Your task to perform on an android device: Open calendar and show me the first week of next month Image 0: 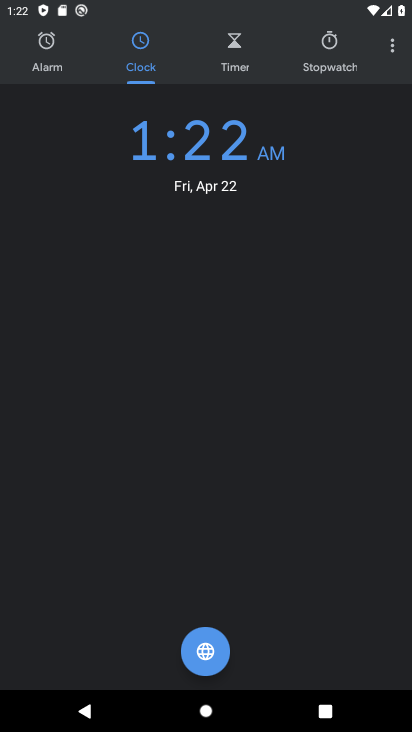
Step 0: press home button
Your task to perform on an android device: Open calendar and show me the first week of next month Image 1: 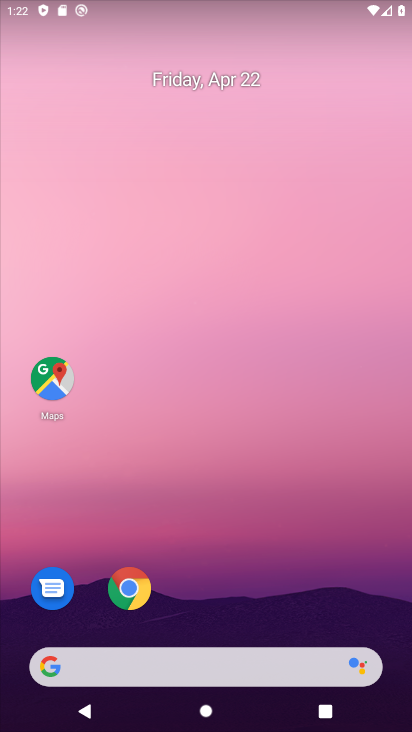
Step 1: drag from (209, 658) to (233, 178)
Your task to perform on an android device: Open calendar and show me the first week of next month Image 2: 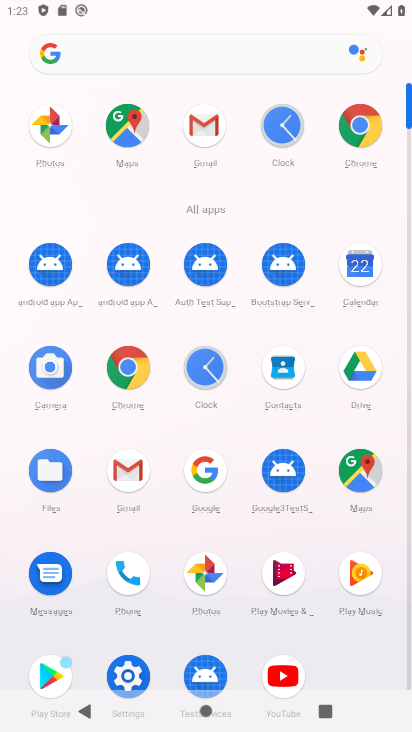
Step 2: click (373, 277)
Your task to perform on an android device: Open calendar and show me the first week of next month Image 3: 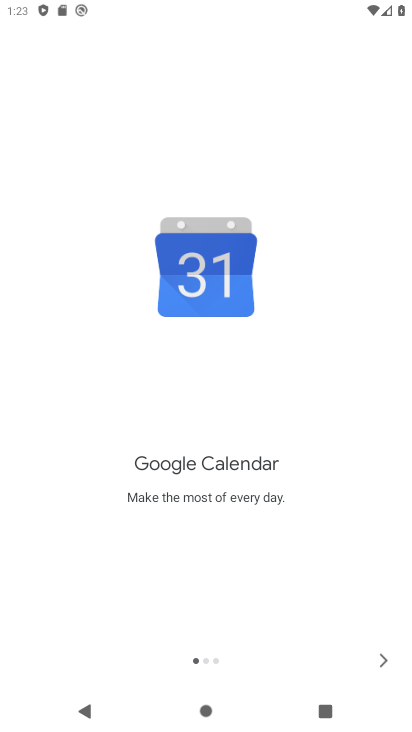
Step 3: click (379, 658)
Your task to perform on an android device: Open calendar and show me the first week of next month Image 4: 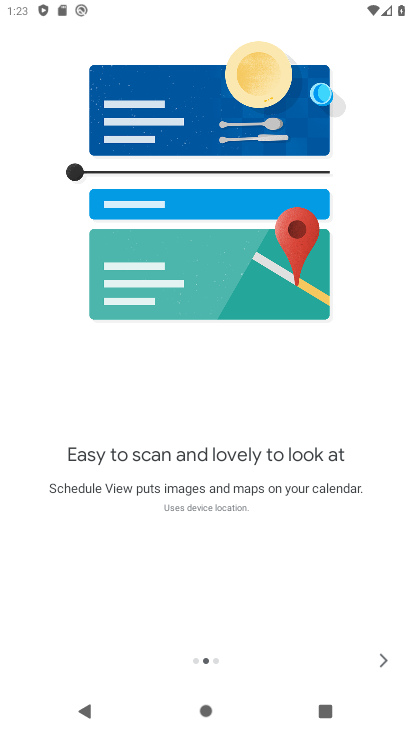
Step 4: click (381, 656)
Your task to perform on an android device: Open calendar and show me the first week of next month Image 5: 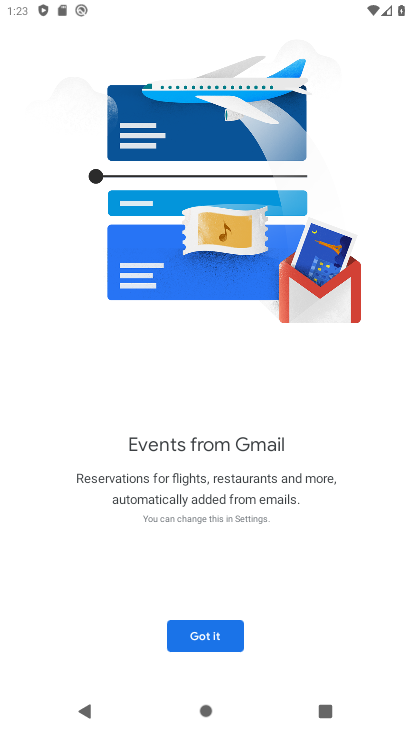
Step 5: click (232, 639)
Your task to perform on an android device: Open calendar and show me the first week of next month Image 6: 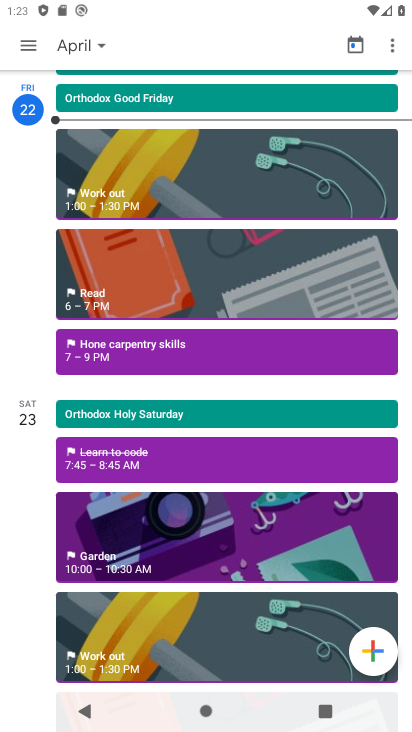
Step 6: click (99, 48)
Your task to perform on an android device: Open calendar and show me the first week of next month Image 7: 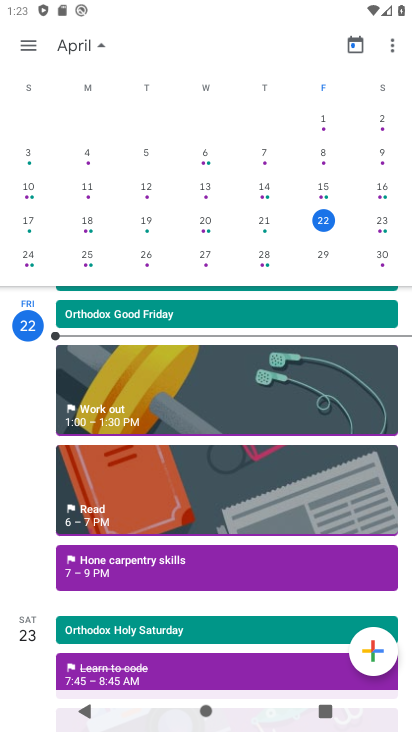
Step 7: task complete